Your task to perform on an android device: remove spam from my inbox in the gmail app Image 0: 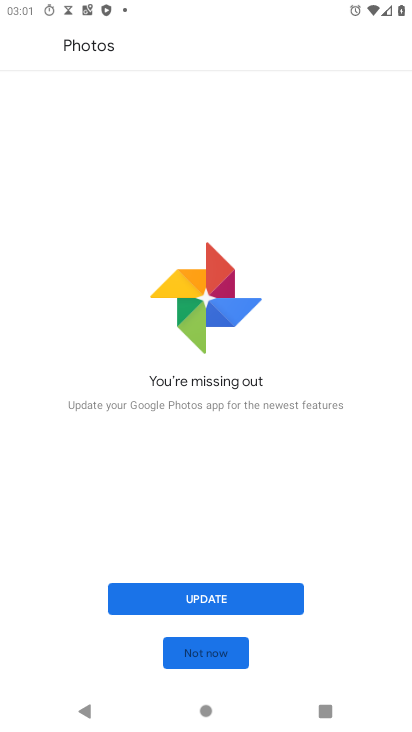
Step 0: press home button
Your task to perform on an android device: remove spam from my inbox in the gmail app Image 1: 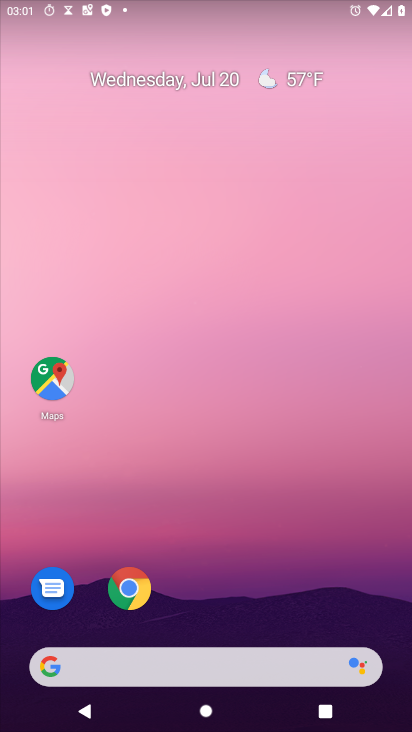
Step 1: drag from (315, 619) to (281, 18)
Your task to perform on an android device: remove spam from my inbox in the gmail app Image 2: 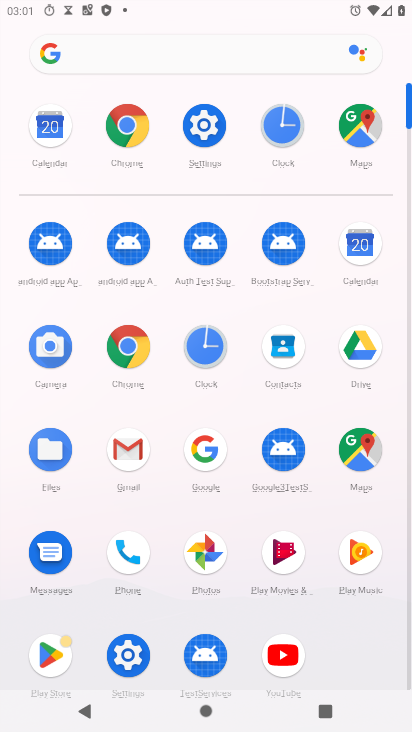
Step 2: click (144, 453)
Your task to perform on an android device: remove spam from my inbox in the gmail app Image 3: 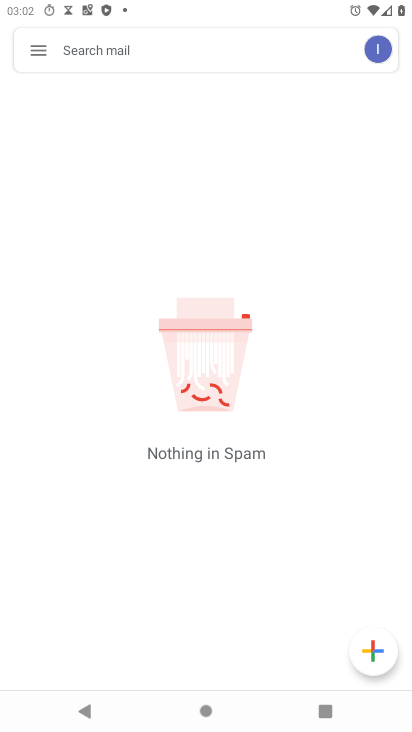
Step 3: click (42, 45)
Your task to perform on an android device: remove spam from my inbox in the gmail app Image 4: 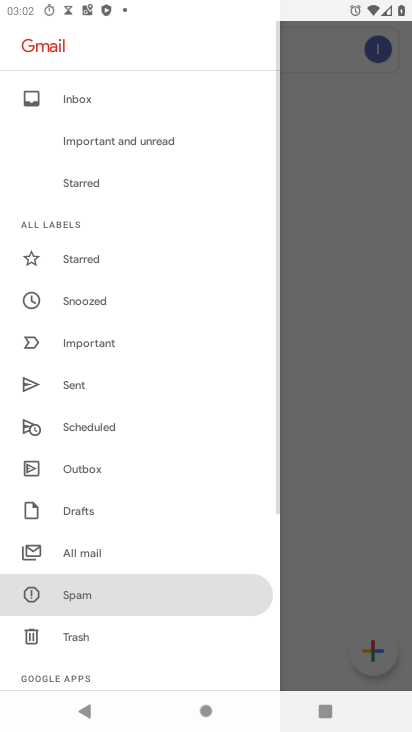
Step 4: click (118, 604)
Your task to perform on an android device: remove spam from my inbox in the gmail app Image 5: 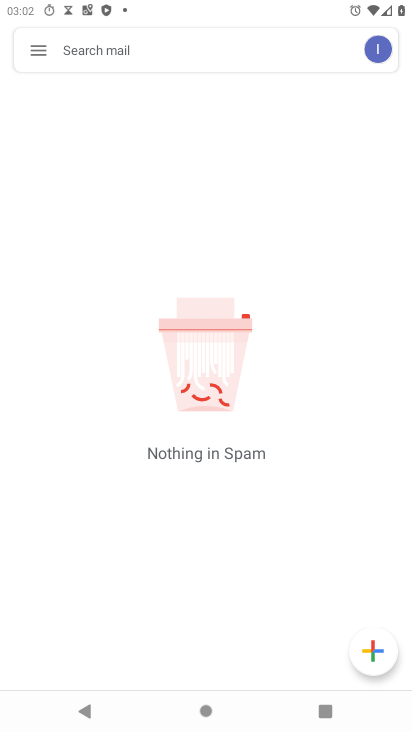
Step 5: task complete